Your task to perform on an android device: change notification settings in the gmail app Image 0: 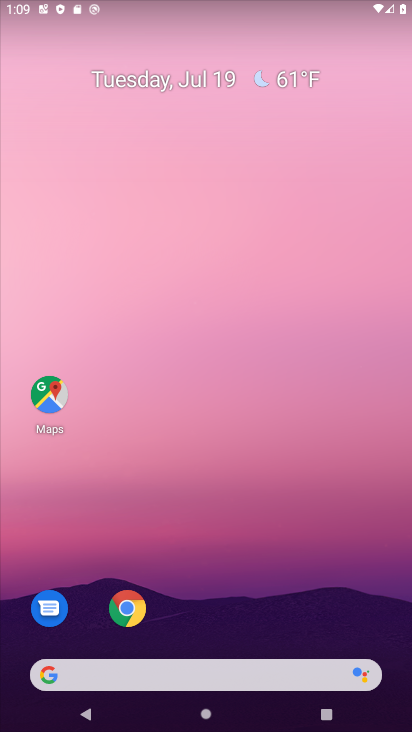
Step 0: drag from (215, 528) to (227, 16)
Your task to perform on an android device: change notification settings in the gmail app Image 1: 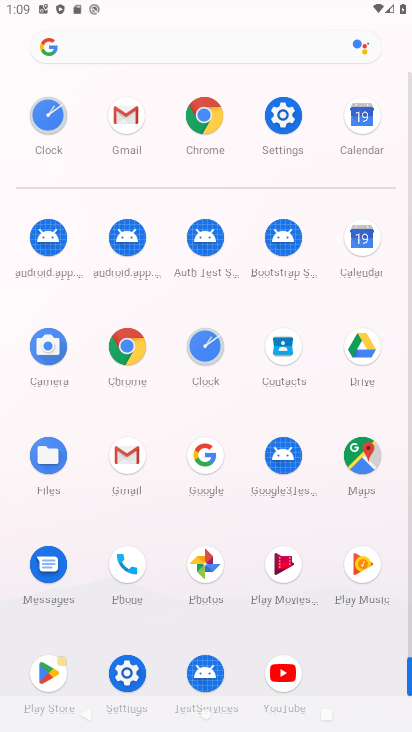
Step 1: click (117, 121)
Your task to perform on an android device: change notification settings in the gmail app Image 2: 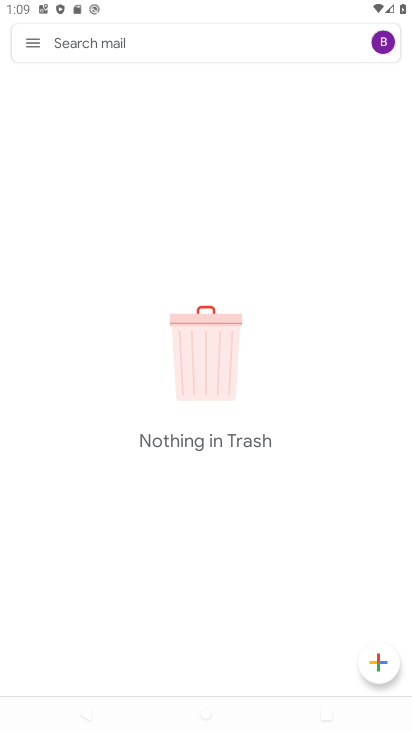
Step 2: click (31, 56)
Your task to perform on an android device: change notification settings in the gmail app Image 3: 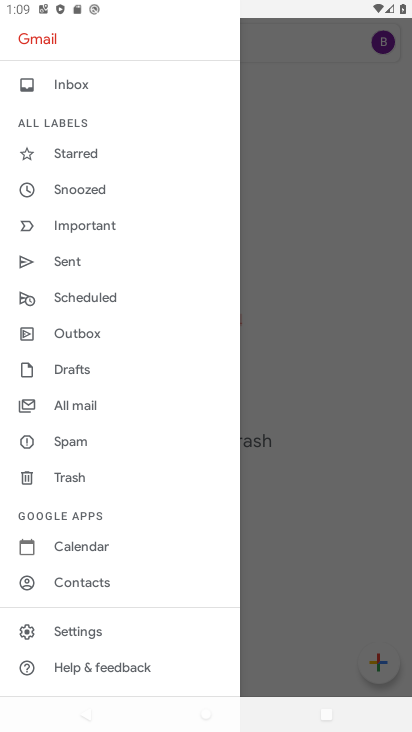
Step 3: drag from (56, 513) to (54, 90)
Your task to perform on an android device: change notification settings in the gmail app Image 4: 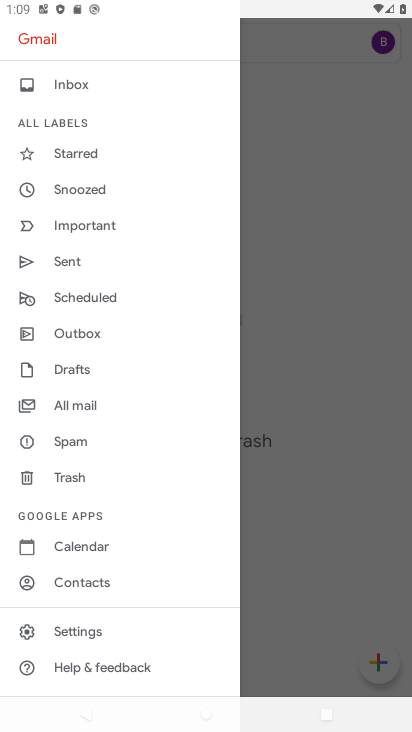
Step 4: click (81, 638)
Your task to perform on an android device: change notification settings in the gmail app Image 5: 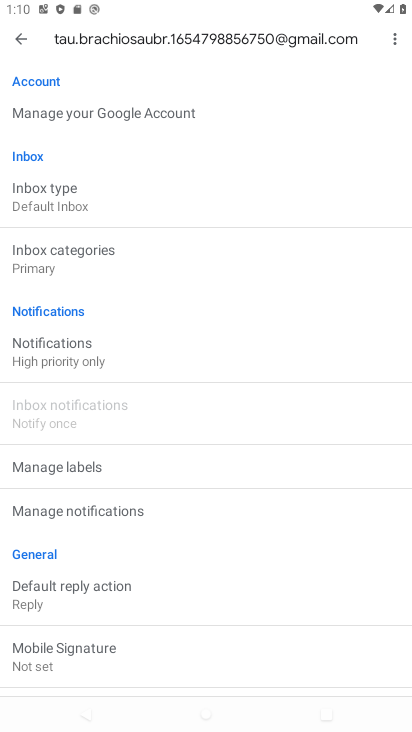
Step 5: click (65, 350)
Your task to perform on an android device: change notification settings in the gmail app Image 6: 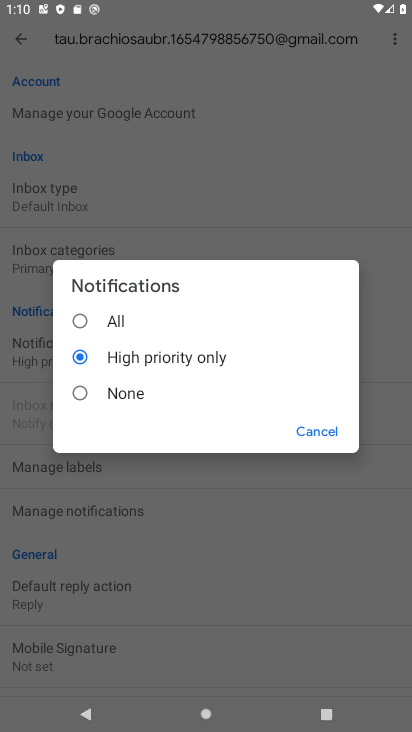
Step 6: click (76, 325)
Your task to perform on an android device: change notification settings in the gmail app Image 7: 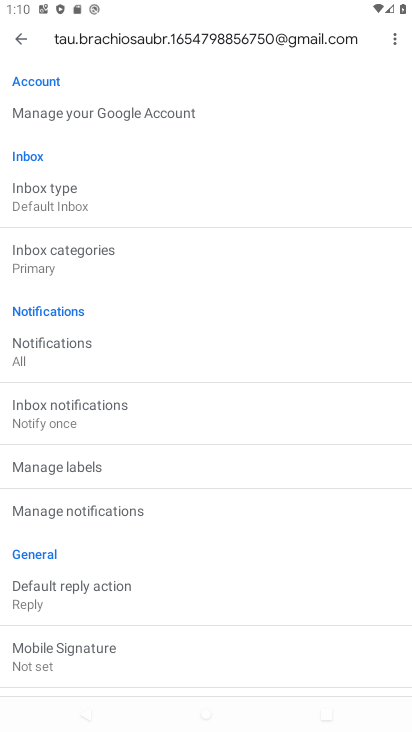
Step 7: task complete